Your task to perform on an android device: What's on Reddit Image 0: 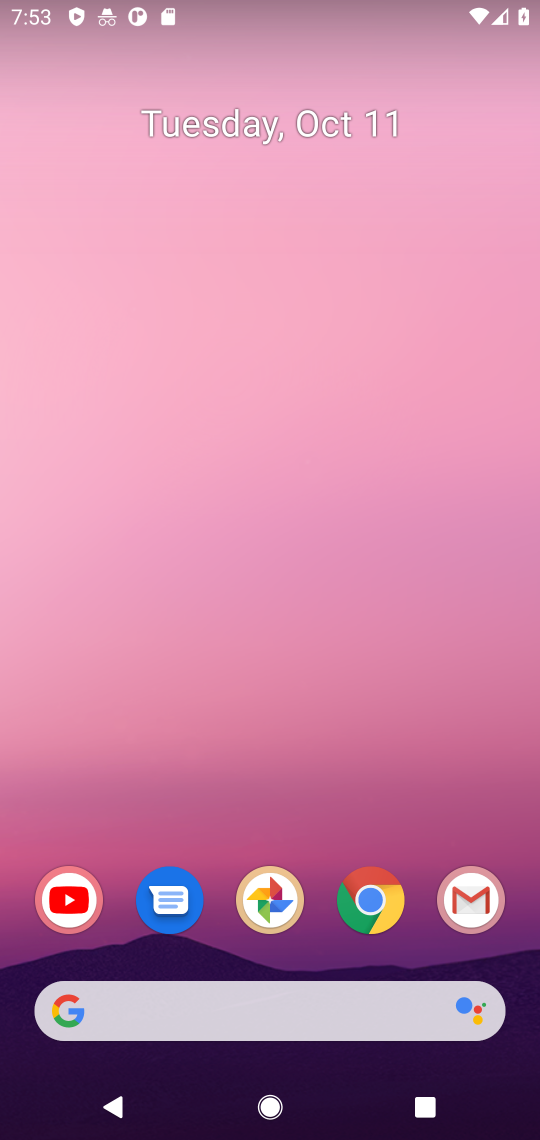
Step 0: click (373, 916)
Your task to perform on an android device: What's on Reddit Image 1: 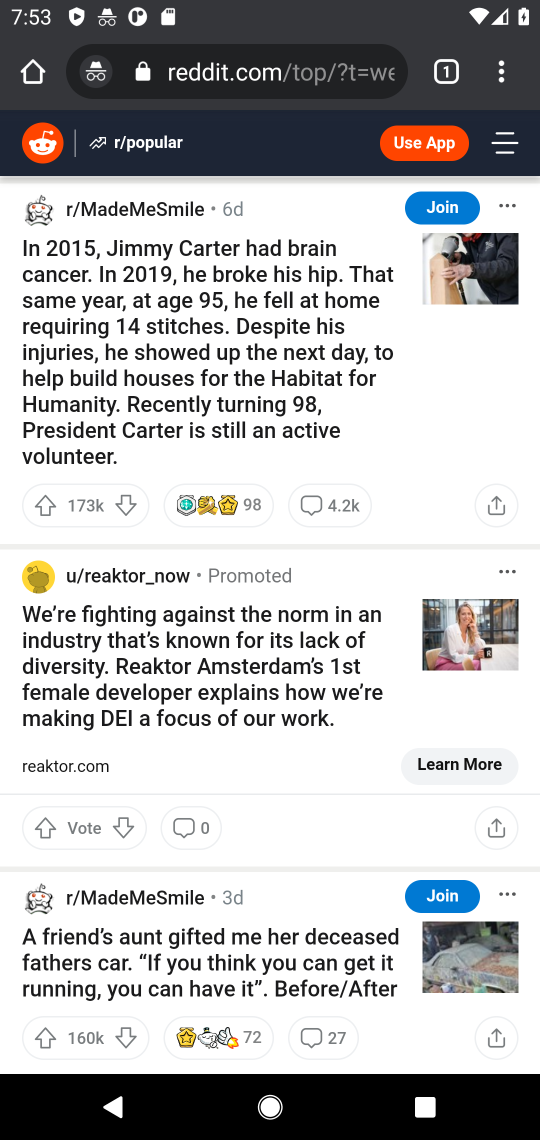
Step 1: click (216, 78)
Your task to perform on an android device: What's on Reddit Image 2: 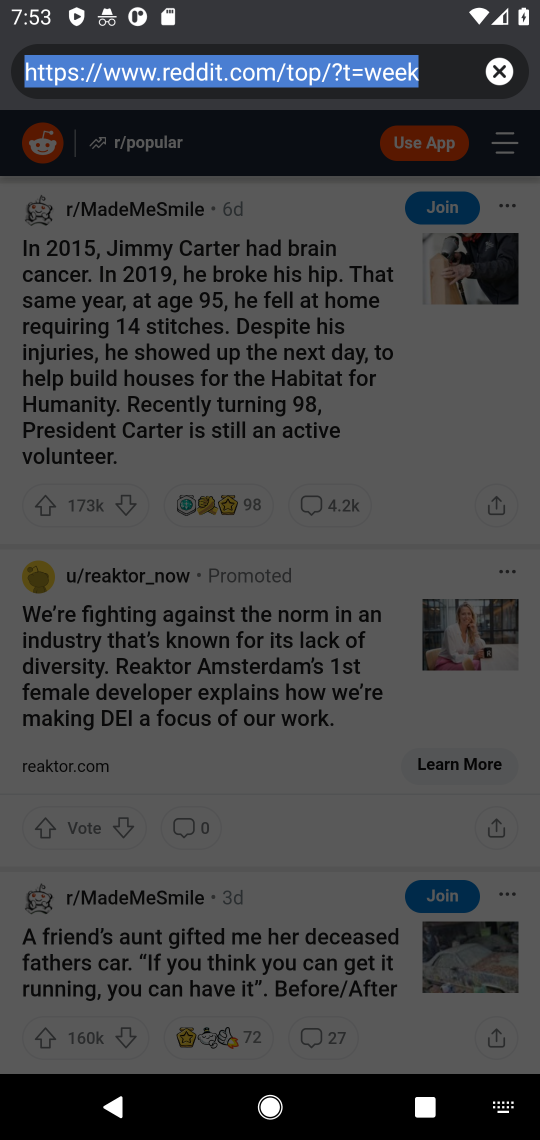
Step 2: click (313, 231)
Your task to perform on an android device: What's on Reddit Image 3: 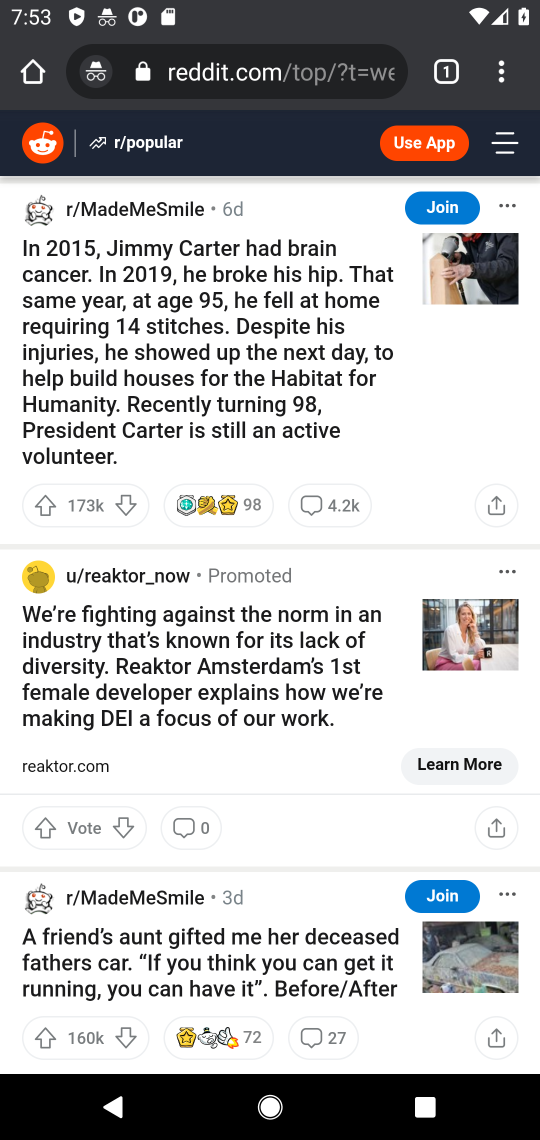
Step 3: click (50, 151)
Your task to perform on an android device: What's on Reddit Image 4: 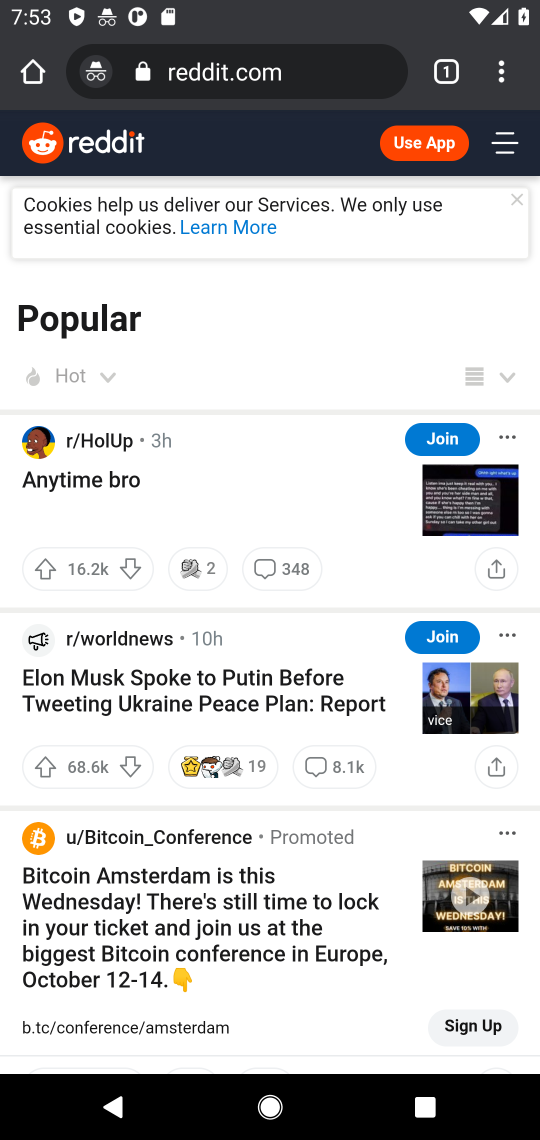
Step 4: task complete